Your task to perform on an android device: move an email to a new category in the gmail app Image 0: 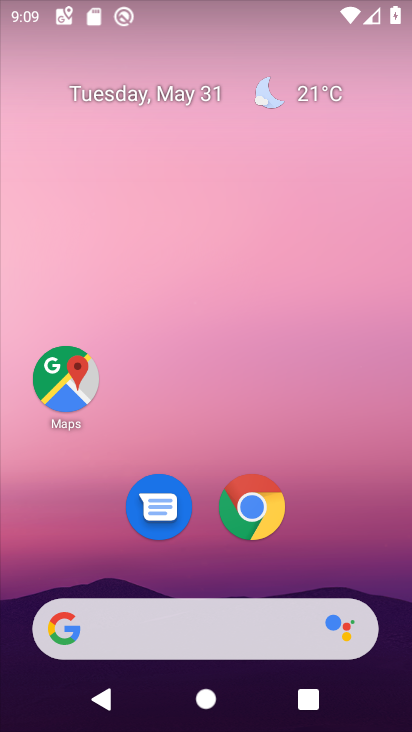
Step 0: drag from (266, 626) to (248, 9)
Your task to perform on an android device: move an email to a new category in the gmail app Image 1: 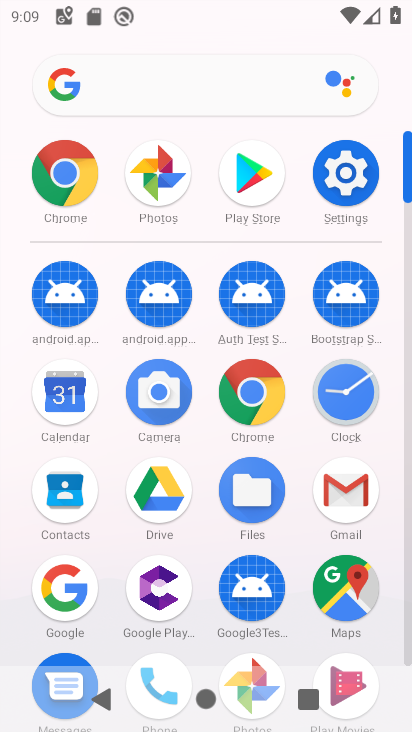
Step 1: click (339, 472)
Your task to perform on an android device: move an email to a new category in the gmail app Image 2: 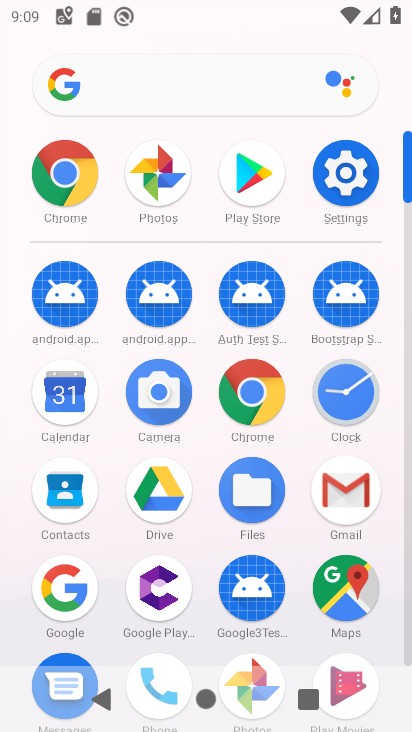
Step 2: click (339, 473)
Your task to perform on an android device: move an email to a new category in the gmail app Image 3: 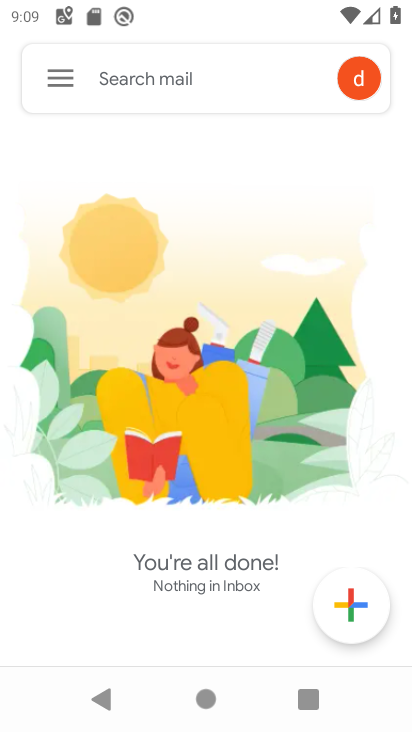
Step 3: click (56, 80)
Your task to perform on an android device: move an email to a new category in the gmail app Image 4: 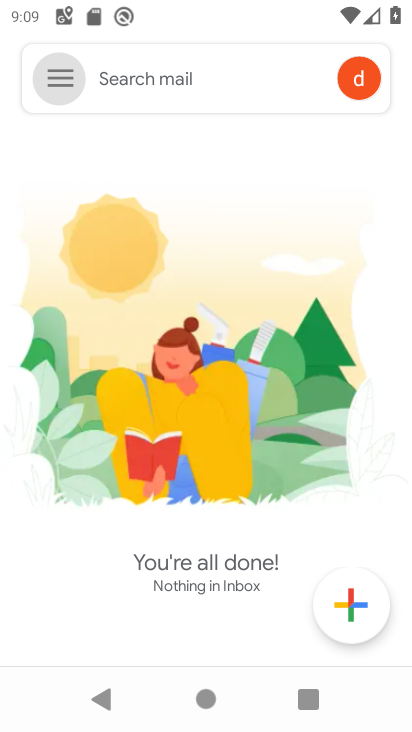
Step 4: click (56, 80)
Your task to perform on an android device: move an email to a new category in the gmail app Image 5: 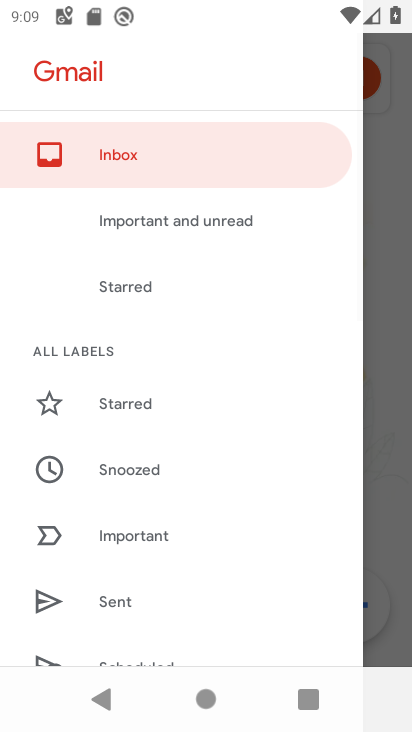
Step 5: drag from (136, 475) to (136, 131)
Your task to perform on an android device: move an email to a new category in the gmail app Image 6: 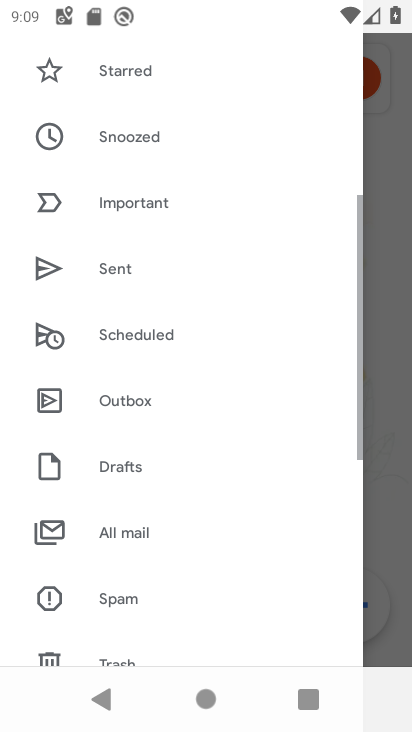
Step 6: drag from (163, 352) to (184, 163)
Your task to perform on an android device: move an email to a new category in the gmail app Image 7: 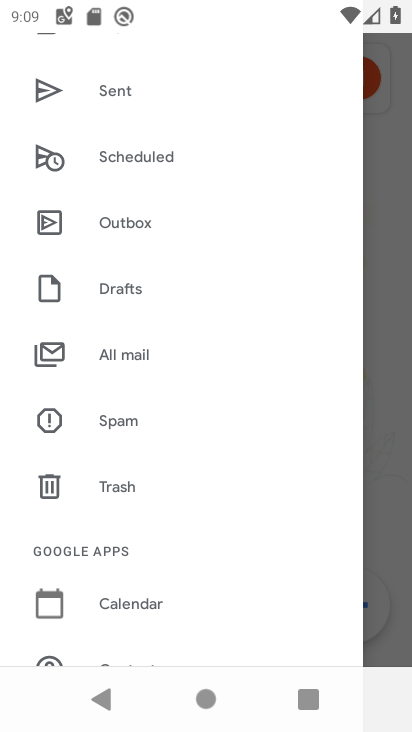
Step 7: click (114, 350)
Your task to perform on an android device: move an email to a new category in the gmail app Image 8: 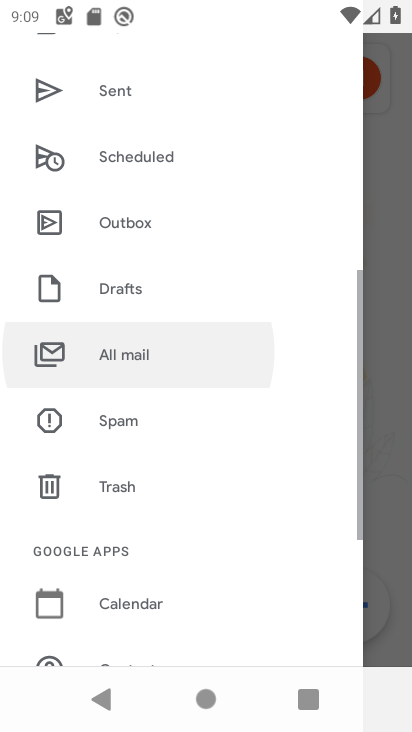
Step 8: click (116, 350)
Your task to perform on an android device: move an email to a new category in the gmail app Image 9: 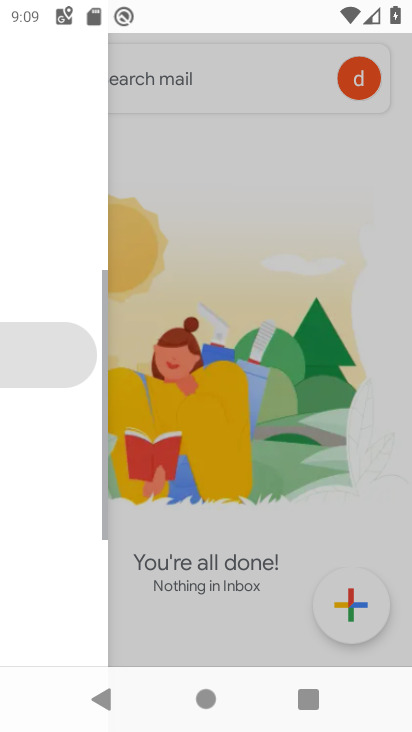
Step 9: click (121, 354)
Your task to perform on an android device: move an email to a new category in the gmail app Image 10: 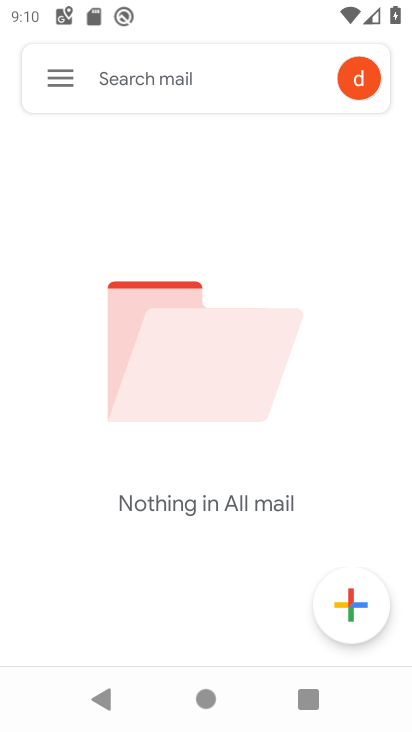
Step 10: task complete